Your task to perform on an android device: Go to Yahoo.com Image 0: 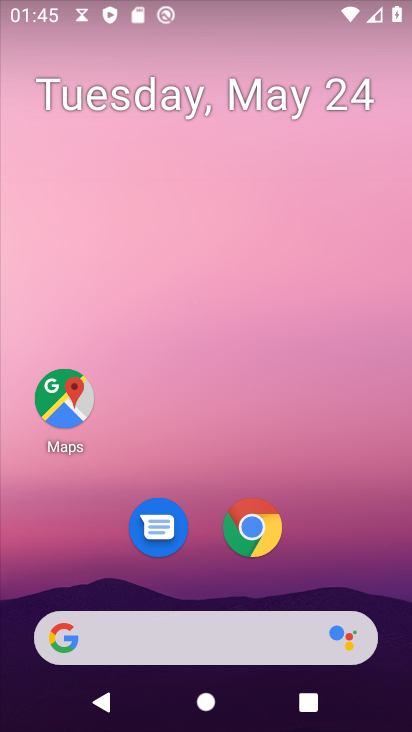
Step 0: press home button
Your task to perform on an android device: Go to Yahoo.com Image 1: 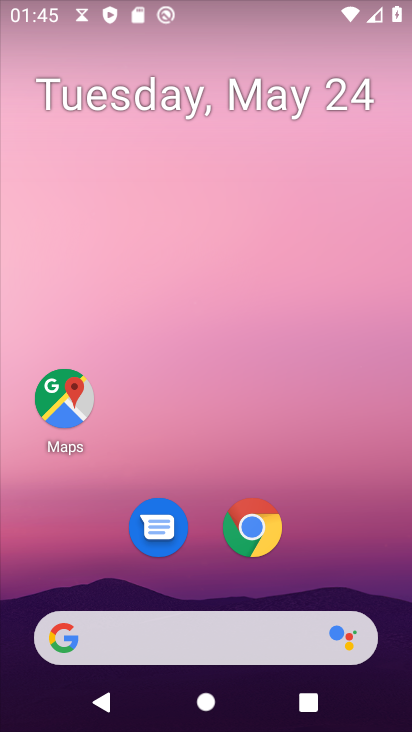
Step 1: click (253, 538)
Your task to perform on an android device: Go to Yahoo.com Image 2: 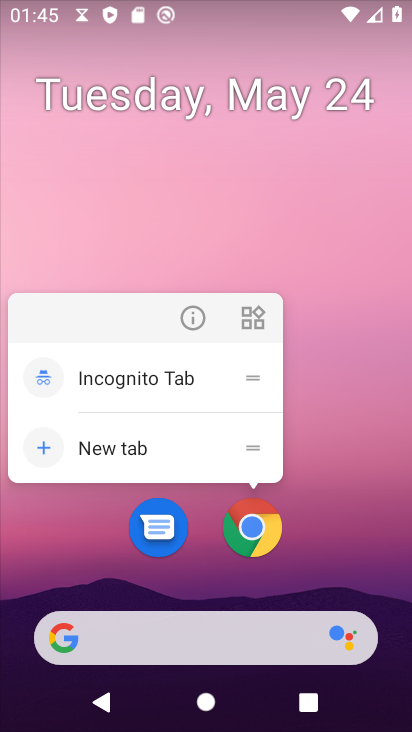
Step 2: click (246, 523)
Your task to perform on an android device: Go to Yahoo.com Image 3: 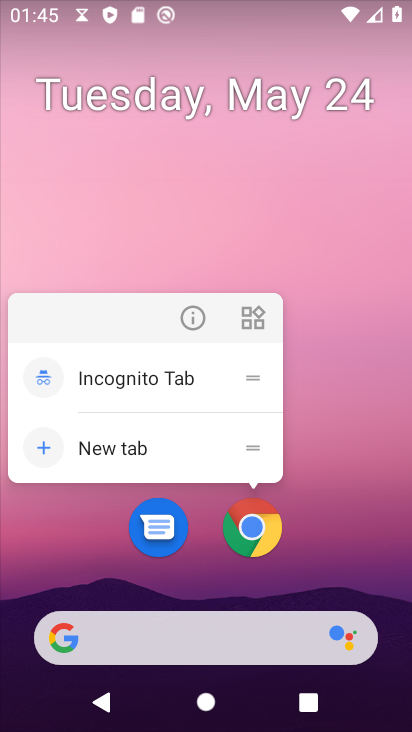
Step 3: click (247, 537)
Your task to perform on an android device: Go to Yahoo.com Image 4: 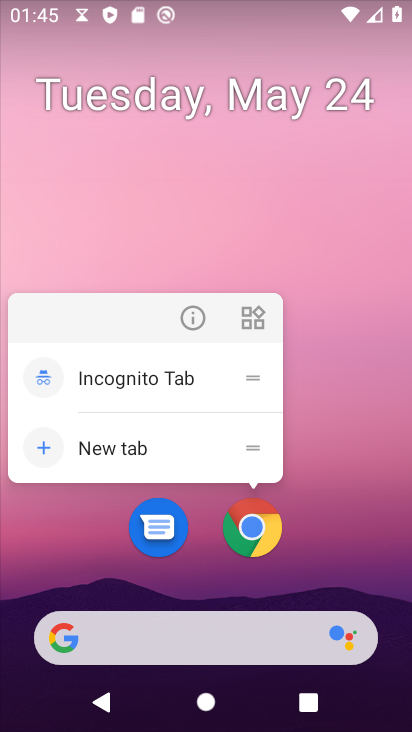
Step 4: click (252, 535)
Your task to perform on an android device: Go to Yahoo.com Image 5: 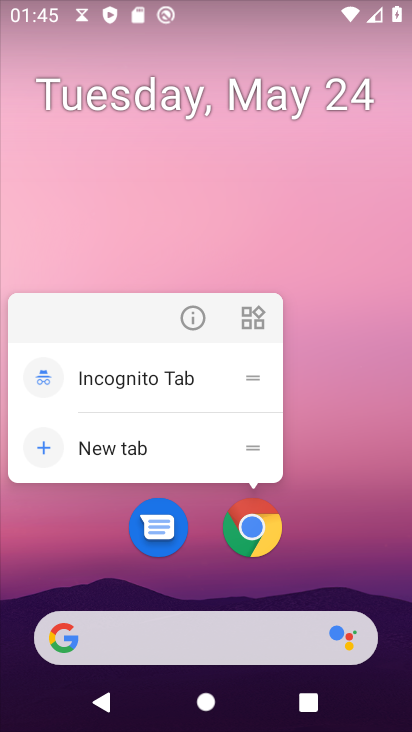
Step 5: click (263, 545)
Your task to perform on an android device: Go to Yahoo.com Image 6: 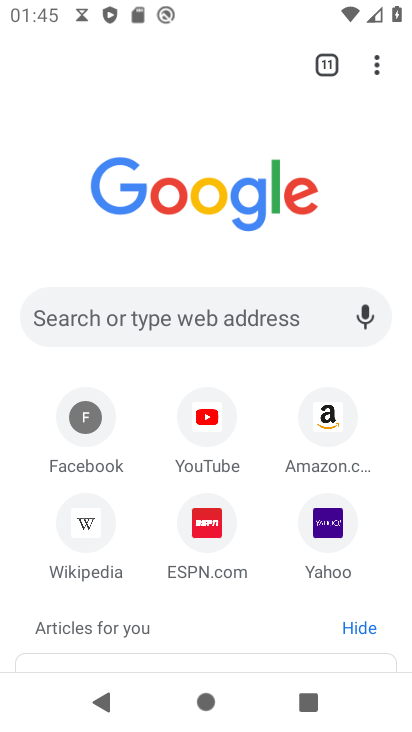
Step 6: click (333, 535)
Your task to perform on an android device: Go to Yahoo.com Image 7: 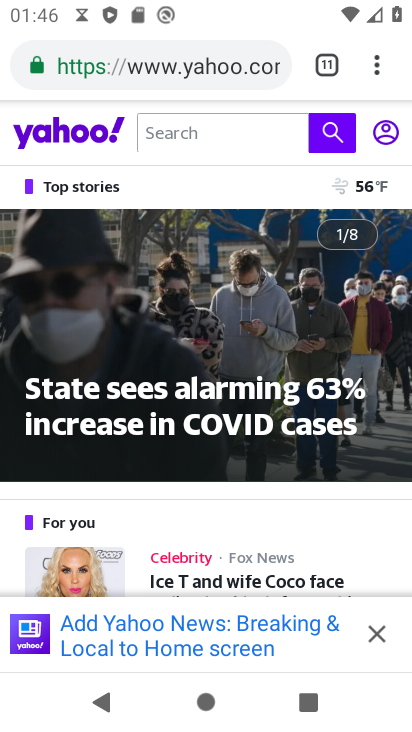
Step 7: task complete